Your task to perform on an android device: Open calendar and show me the third week of next month Image 0: 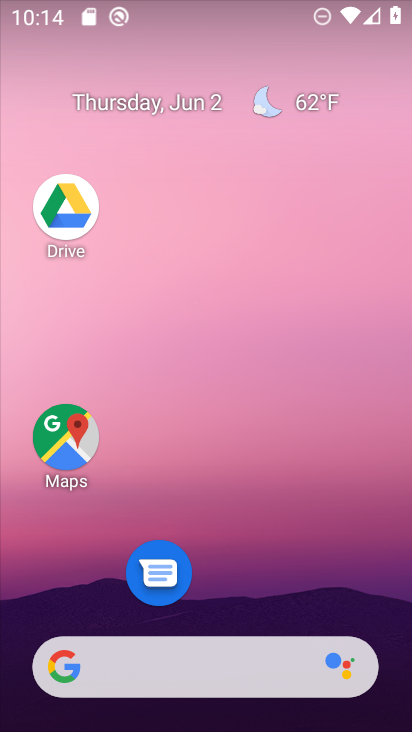
Step 0: drag from (252, 634) to (85, 58)
Your task to perform on an android device: Open calendar and show me the third week of next month Image 1: 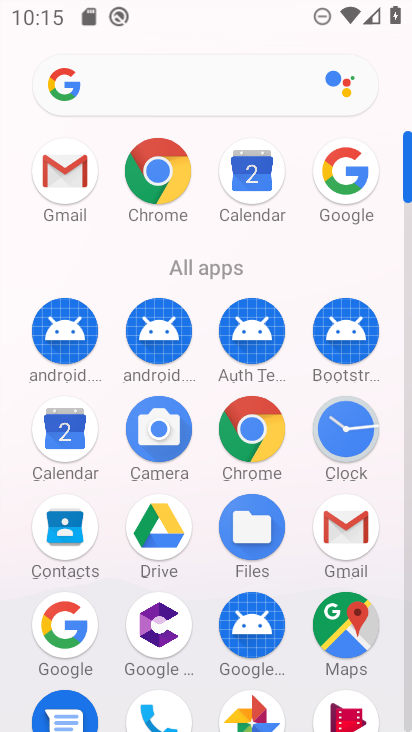
Step 1: click (75, 407)
Your task to perform on an android device: Open calendar and show me the third week of next month Image 2: 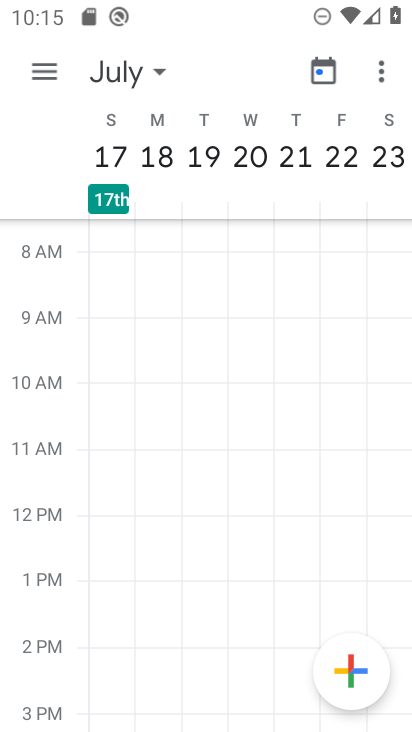
Step 2: task complete